Your task to perform on an android device: What is the recent news? Image 0: 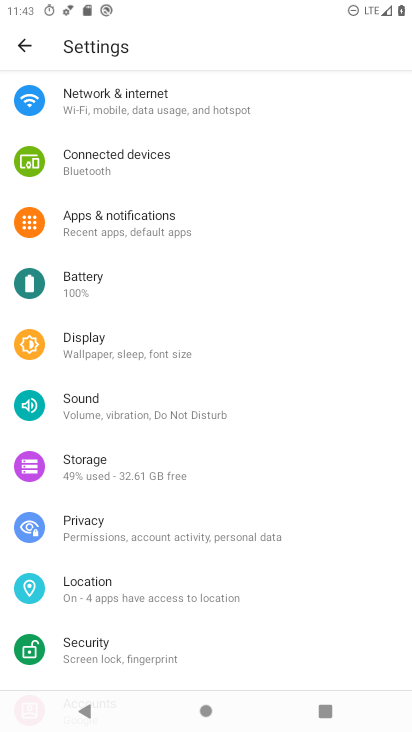
Step 0: press home button
Your task to perform on an android device: What is the recent news? Image 1: 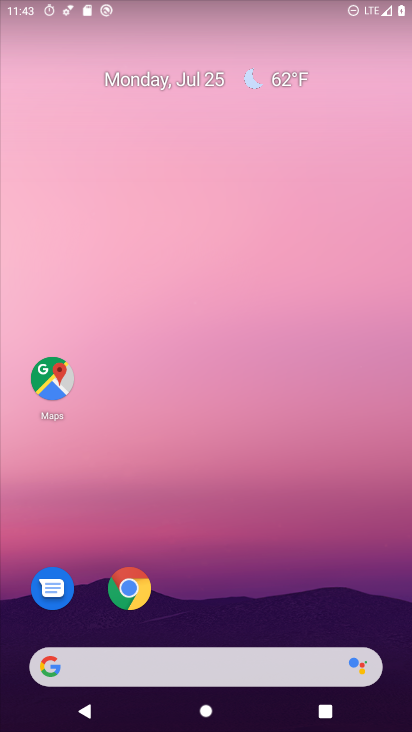
Step 1: click (154, 657)
Your task to perform on an android device: What is the recent news? Image 2: 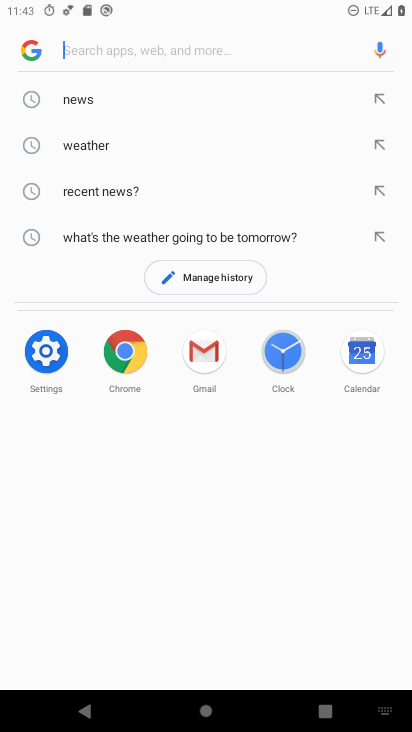
Step 2: click (106, 103)
Your task to perform on an android device: What is the recent news? Image 3: 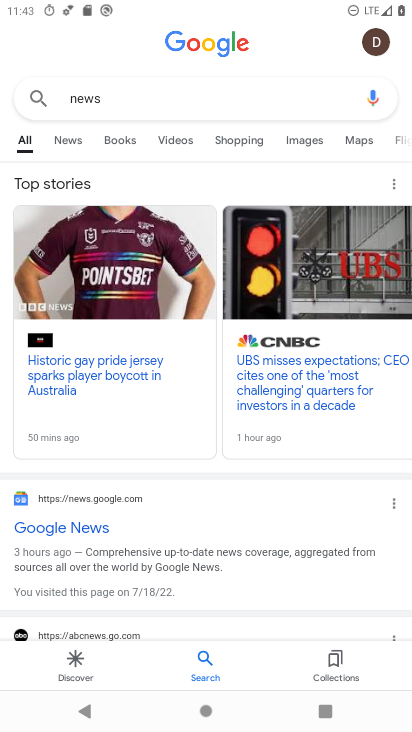
Step 3: task complete